Your task to perform on an android device: Open Google Chrome and click the shortcut for Amazon.com Image 0: 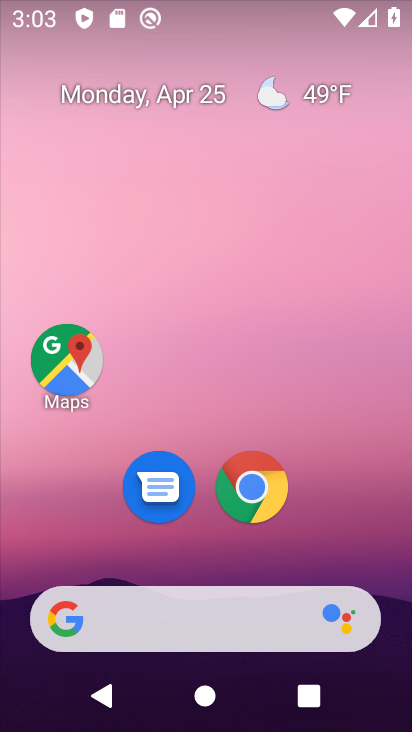
Step 0: click (255, 501)
Your task to perform on an android device: Open Google Chrome and click the shortcut for Amazon.com Image 1: 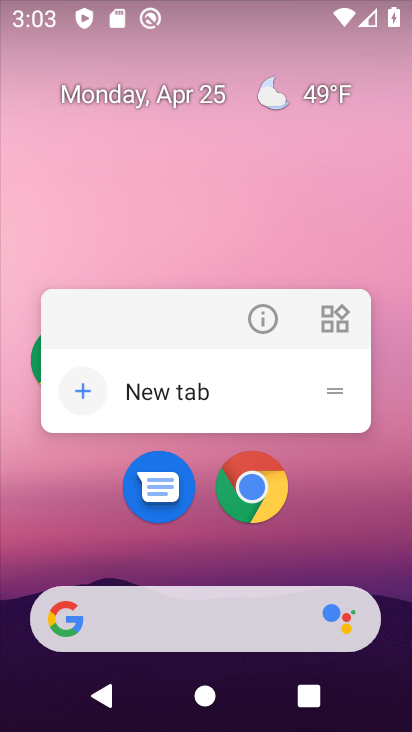
Step 1: click (256, 490)
Your task to perform on an android device: Open Google Chrome and click the shortcut for Amazon.com Image 2: 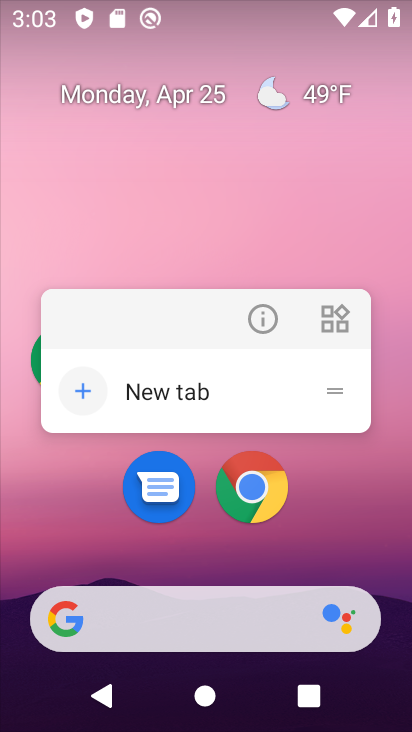
Step 2: click (256, 490)
Your task to perform on an android device: Open Google Chrome and click the shortcut for Amazon.com Image 3: 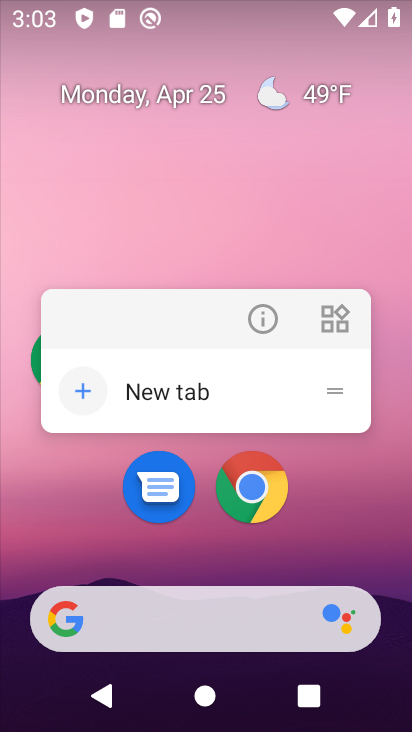
Step 3: click (253, 489)
Your task to perform on an android device: Open Google Chrome and click the shortcut for Amazon.com Image 4: 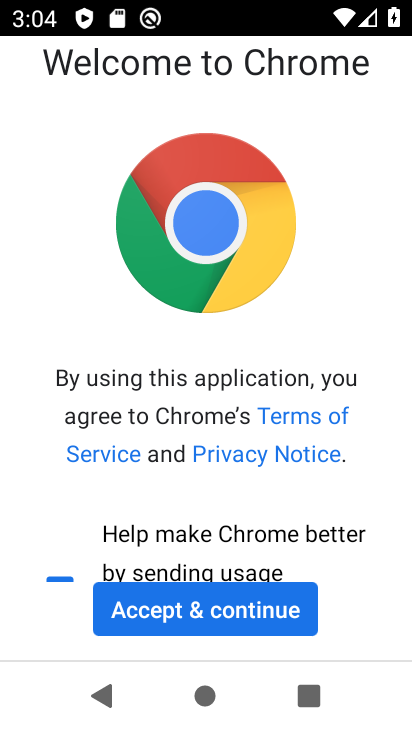
Step 4: click (186, 625)
Your task to perform on an android device: Open Google Chrome and click the shortcut for Amazon.com Image 5: 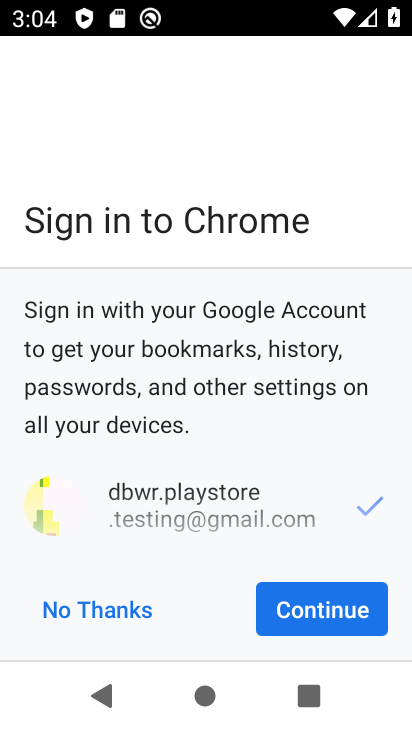
Step 5: click (92, 616)
Your task to perform on an android device: Open Google Chrome and click the shortcut for Amazon.com Image 6: 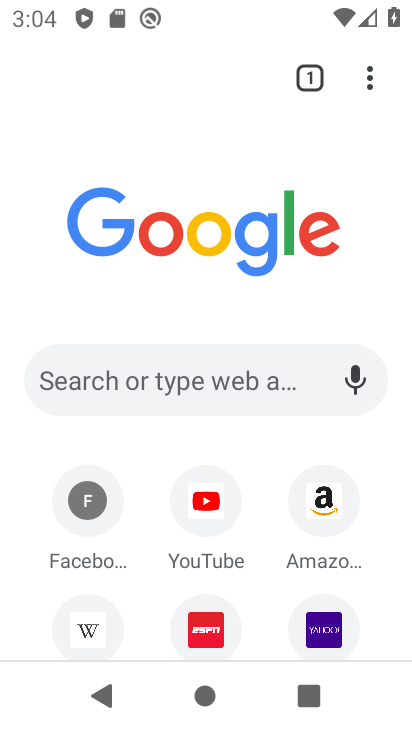
Step 6: click (333, 506)
Your task to perform on an android device: Open Google Chrome and click the shortcut for Amazon.com Image 7: 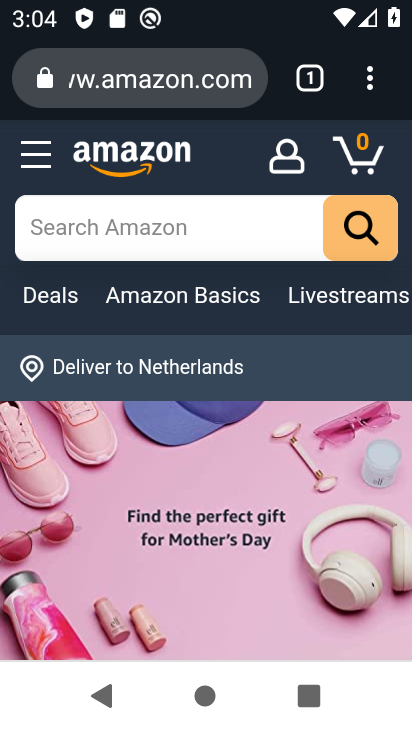
Step 7: task complete